Your task to perform on an android device: install app "Viber Messenger" Image 0: 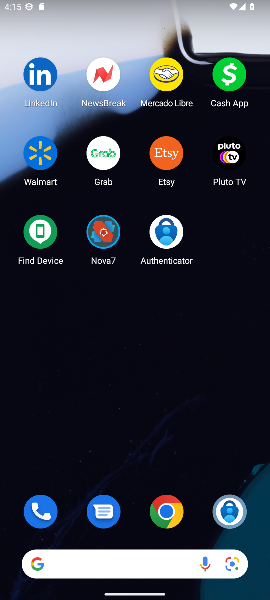
Step 0: drag from (130, 536) to (134, 147)
Your task to perform on an android device: install app "Viber Messenger" Image 1: 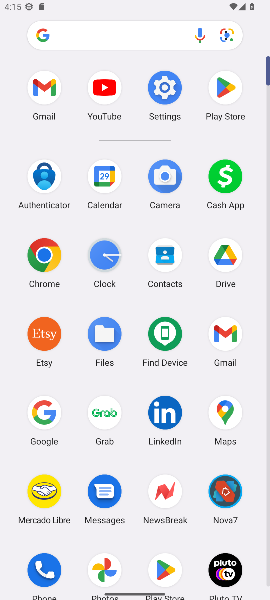
Step 1: click (220, 91)
Your task to perform on an android device: install app "Viber Messenger" Image 2: 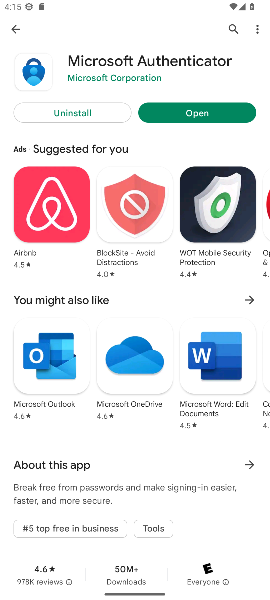
Step 2: drag from (16, 28) to (44, 28)
Your task to perform on an android device: install app "Viber Messenger" Image 3: 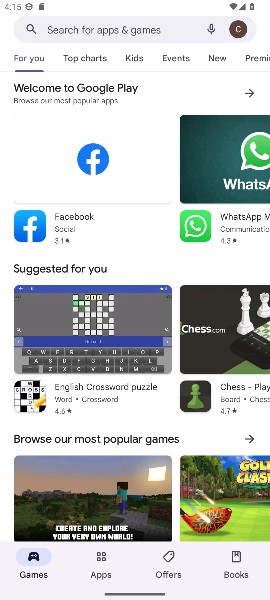
Step 3: click (72, 30)
Your task to perform on an android device: install app "Viber Messenger" Image 4: 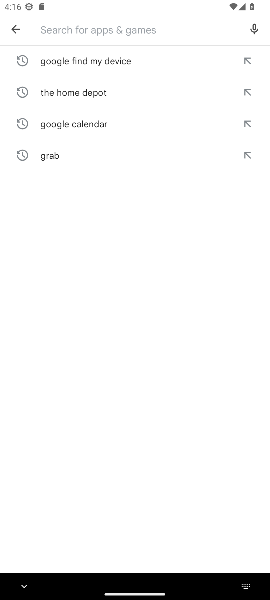
Step 4: type "Viber Messenger"
Your task to perform on an android device: install app "Viber Messenger" Image 5: 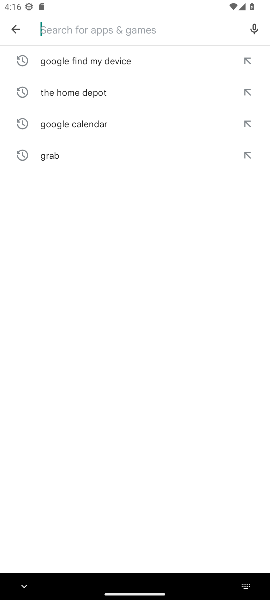
Step 5: click (70, 29)
Your task to perform on an android device: install app "Viber Messenger" Image 6: 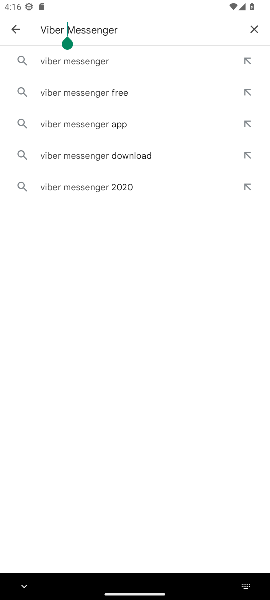
Step 6: click (87, 62)
Your task to perform on an android device: install app "Viber Messenger" Image 7: 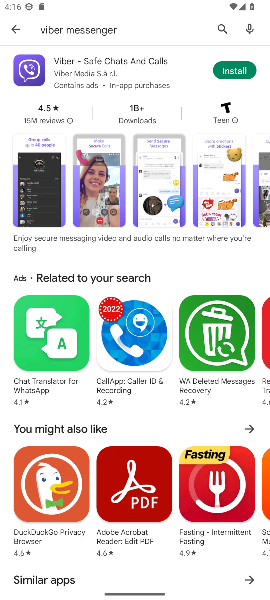
Step 7: click (225, 72)
Your task to perform on an android device: install app "Viber Messenger" Image 8: 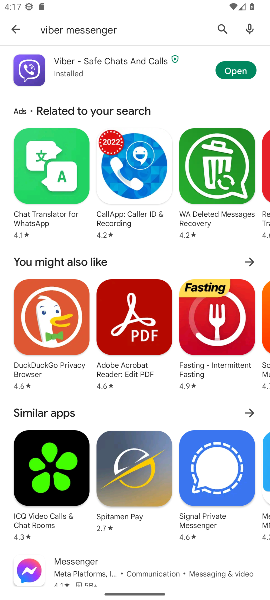
Step 8: click (236, 68)
Your task to perform on an android device: install app "Viber Messenger" Image 9: 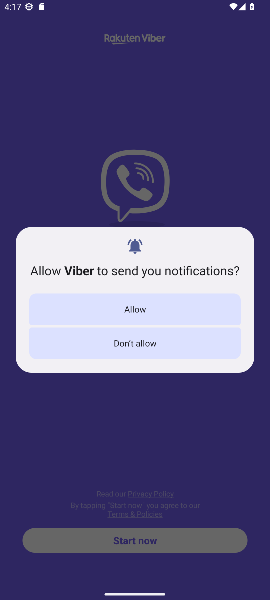
Step 9: task complete